Your task to perform on an android device: What's the weather going to be tomorrow? Image 0: 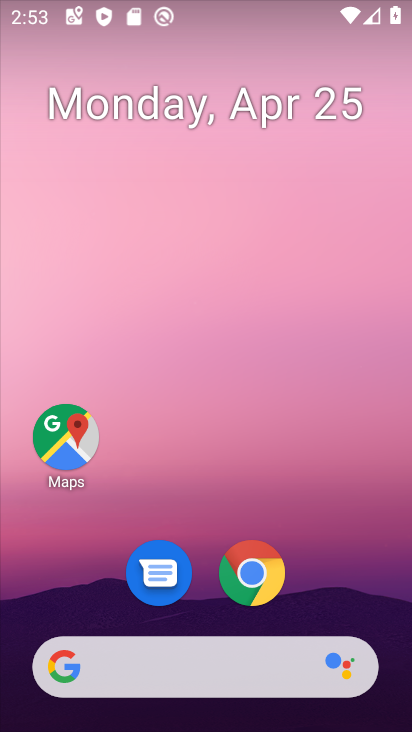
Step 0: click (370, 274)
Your task to perform on an android device: What's the weather going to be tomorrow? Image 1: 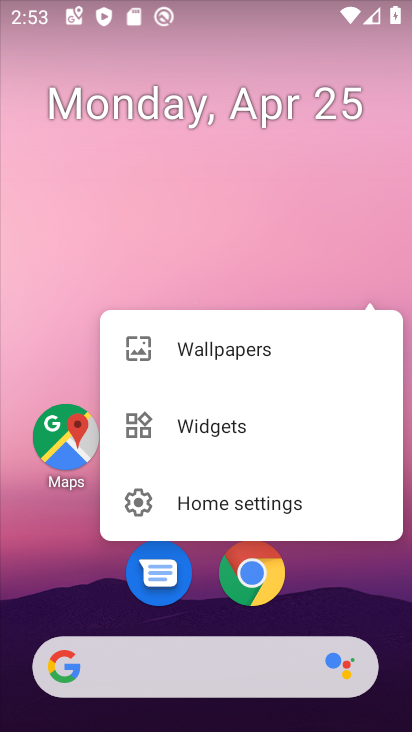
Step 1: drag from (314, 265) to (379, 276)
Your task to perform on an android device: What's the weather going to be tomorrow? Image 2: 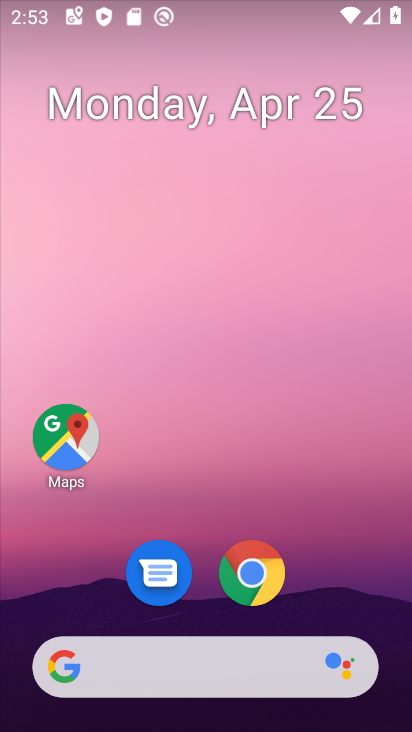
Step 2: click (79, 210)
Your task to perform on an android device: What's the weather going to be tomorrow? Image 3: 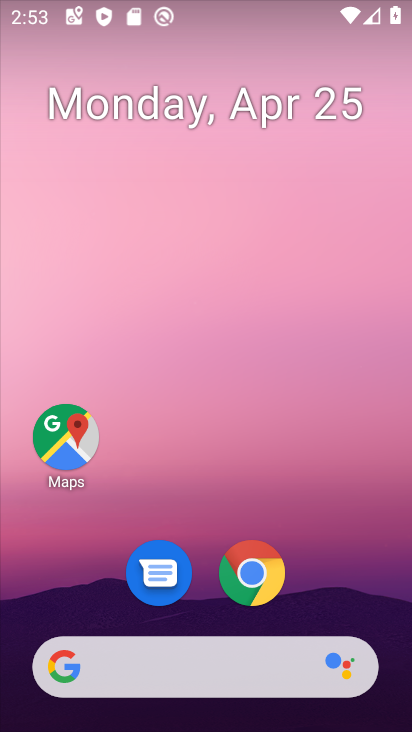
Step 3: drag from (0, 305) to (227, 347)
Your task to perform on an android device: What's the weather going to be tomorrow? Image 4: 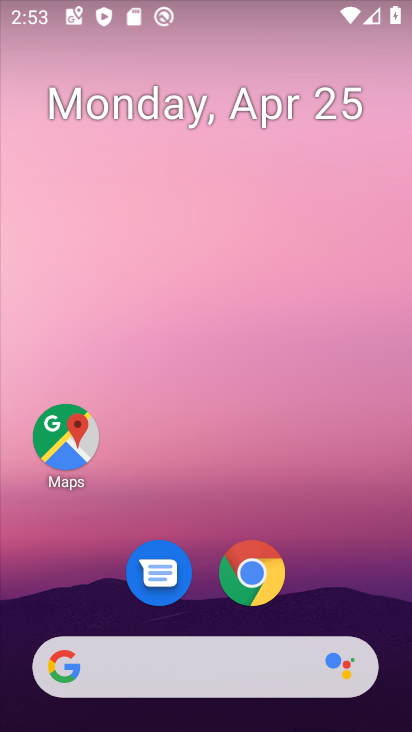
Step 4: drag from (0, 280) to (404, 301)
Your task to perform on an android device: What's the weather going to be tomorrow? Image 5: 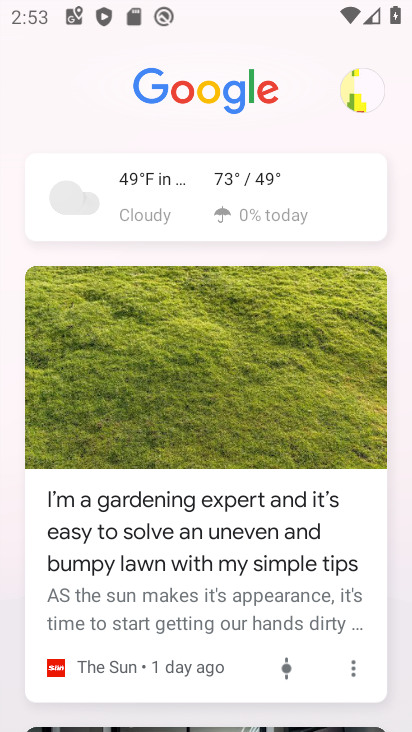
Step 5: click (240, 174)
Your task to perform on an android device: What's the weather going to be tomorrow? Image 6: 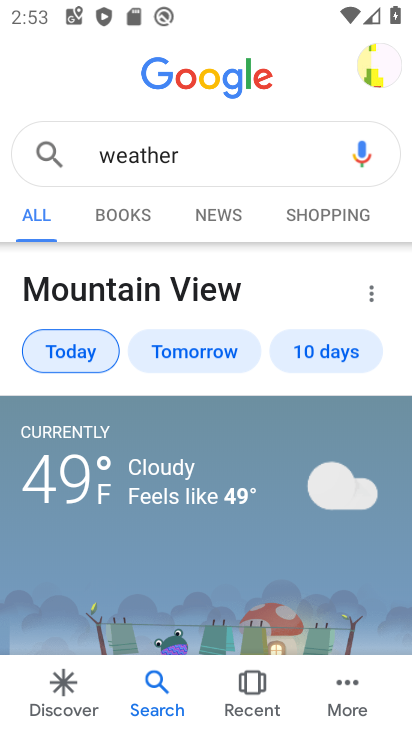
Step 6: click (214, 346)
Your task to perform on an android device: What's the weather going to be tomorrow? Image 7: 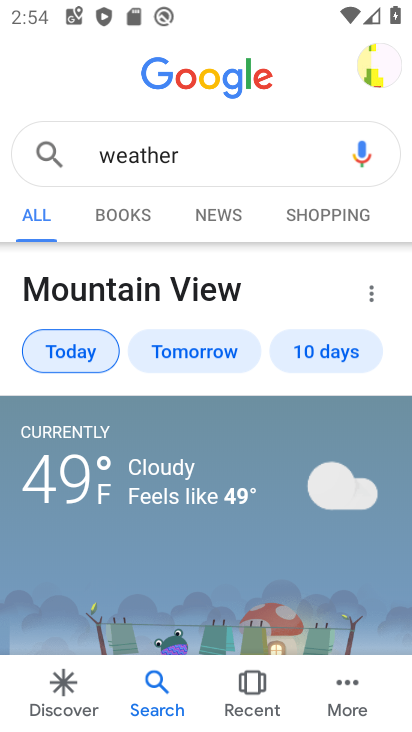
Step 7: click (213, 153)
Your task to perform on an android device: What's the weather going to be tomorrow? Image 8: 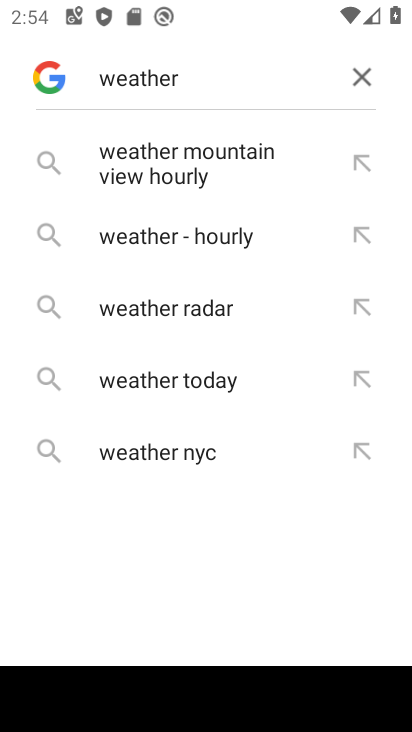
Step 8: type " tomorrow"
Your task to perform on an android device: What's the weather going to be tomorrow? Image 9: 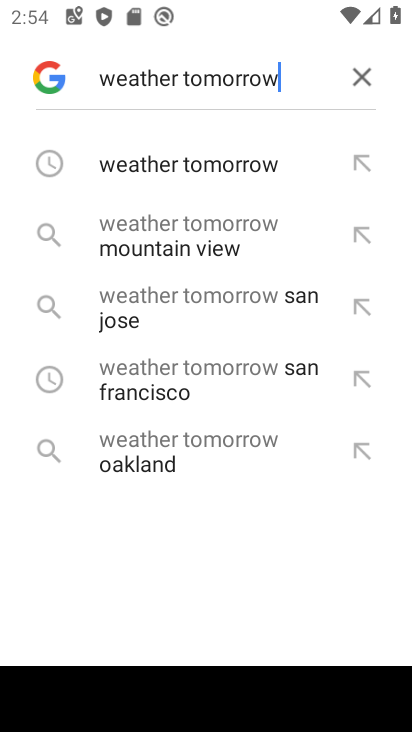
Step 9: click (211, 152)
Your task to perform on an android device: What's the weather going to be tomorrow? Image 10: 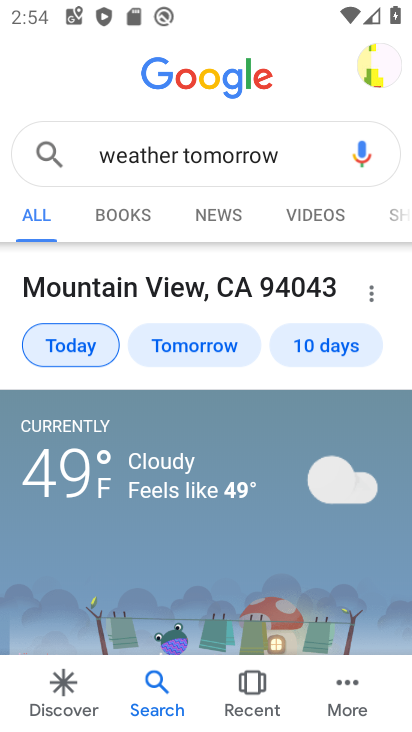
Step 10: drag from (254, 525) to (203, 220)
Your task to perform on an android device: What's the weather going to be tomorrow? Image 11: 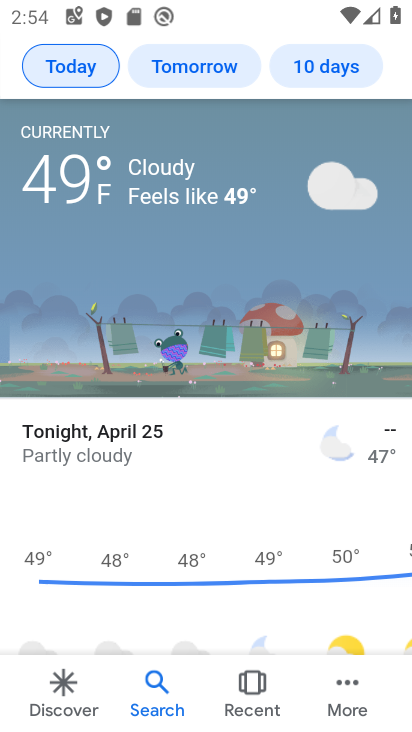
Step 11: drag from (346, 436) to (28, 400)
Your task to perform on an android device: What's the weather going to be tomorrow? Image 12: 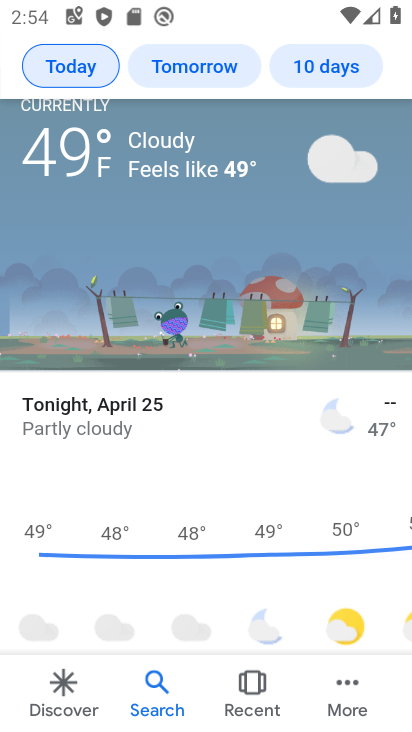
Step 12: click (205, 68)
Your task to perform on an android device: What's the weather going to be tomorrow? Image 13: 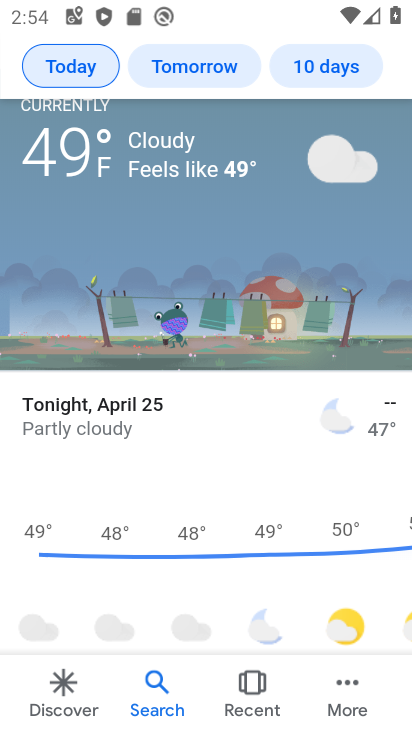
Step 13: click (205, 67)
Your task to perform on an android device: What's the weather going to be tomorrow? Image 14: 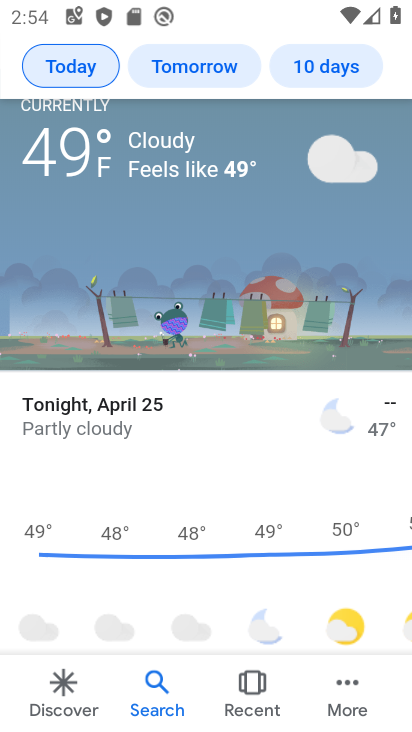
Step 14: task complete